Your task to perform on an android device: Check the news Image 0: 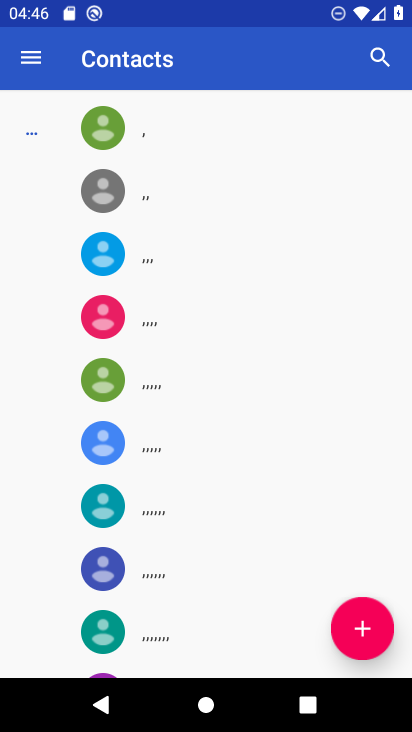
Step 0: press home button
Your task to perform on an android device: Check the news Image 1: 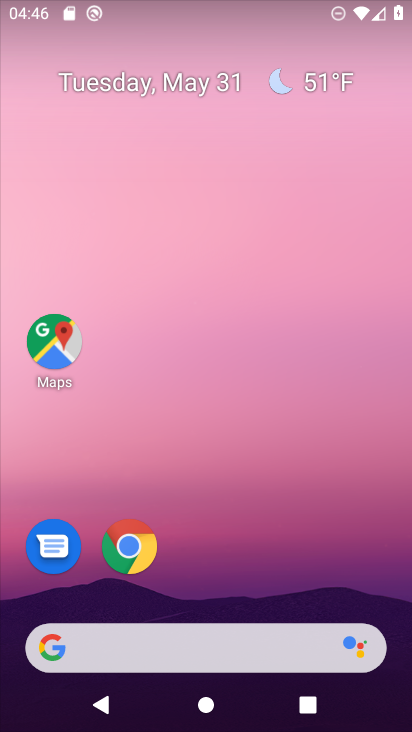
Step 1: drag from (170, 593) to (218, 300)
Your task to perform on an android device: Check the news Image 2: 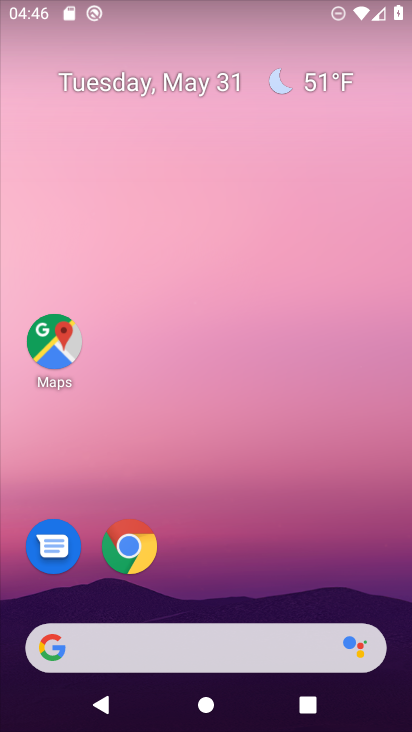
Step 2: drag from (201, 578) to (260, 233)
Your task to perform on an android device: Check the news Image 3: 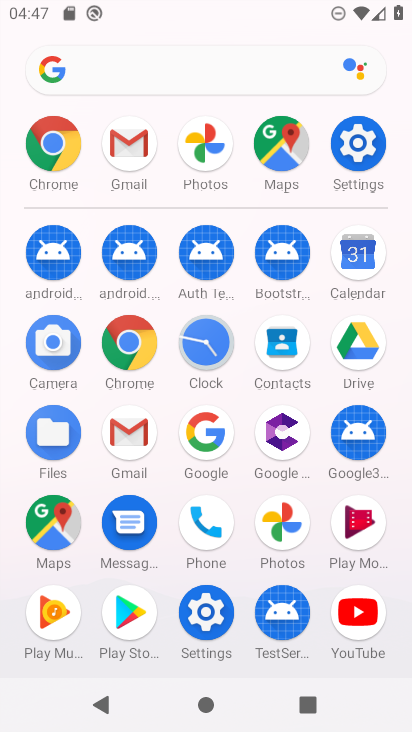
Step 3: click (201, 452)
Your task to perform on an android device: Check the news Image 4: 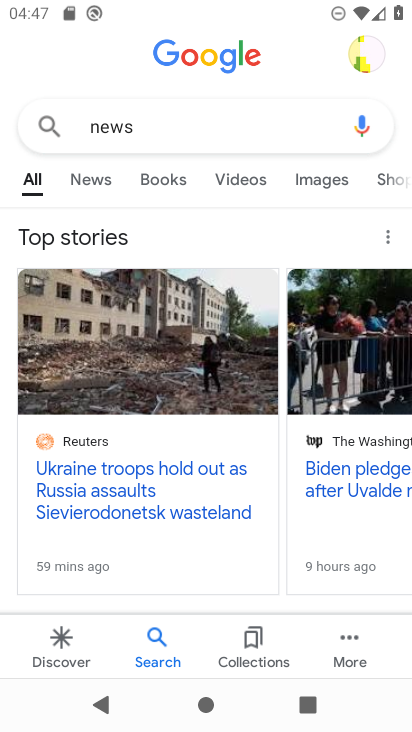
Step 4: task complete